Your task to perform on an android device: turn on airplane mode Image 0: 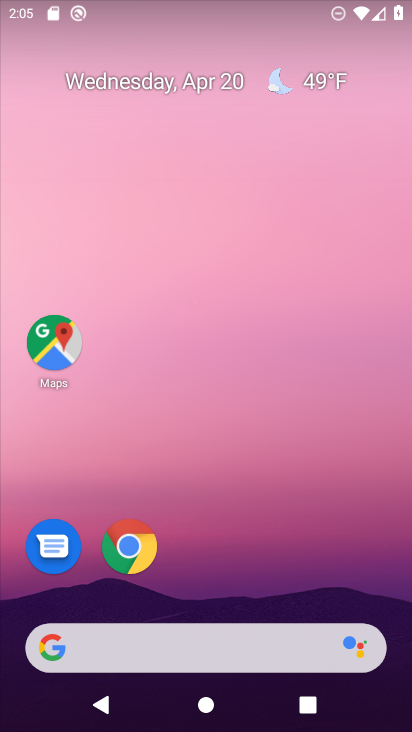
Step 0: drag from (344, 5) to (225, 579)
Your task to perform on an android device: turn on airplane mode Image 1: 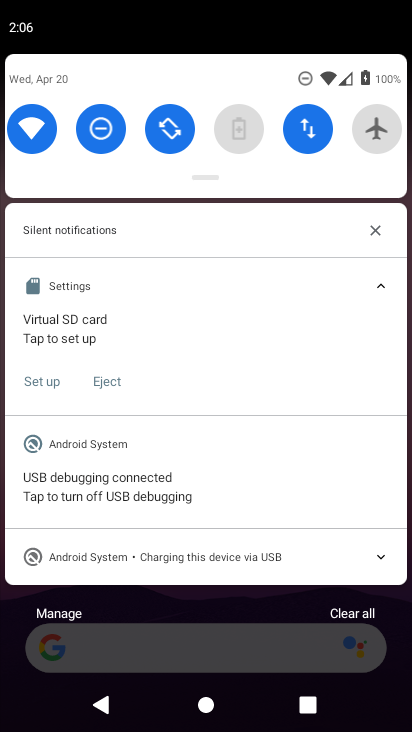
Step 1: click (369, 128)
Your task to perform on an android device: turn on airplane mode Image 2: 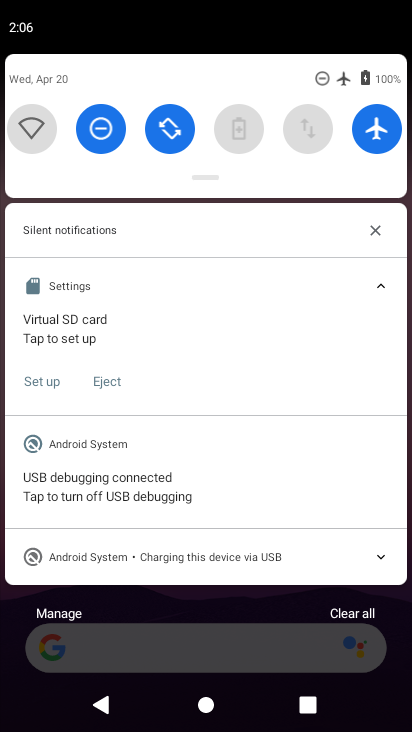
Step 2: task complete